Your task to perform on an android device: check the backup settings in the google photos Image 0: 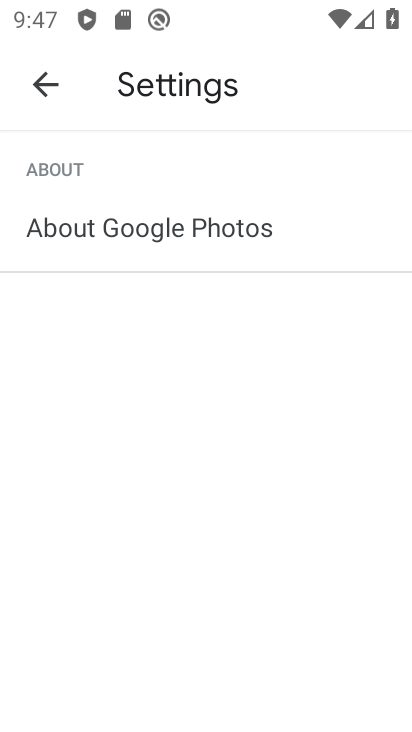
Step 0: press home button
Your task to perform on an android device: check the backup settings in the google photos Image 1: 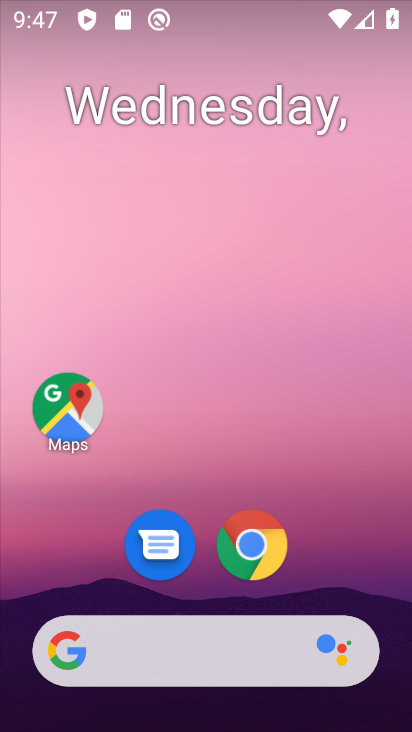
Step 1: drag from (244, 499) to (230, 52)
Your task to perform on an android device: check the backup settings in the google photos Image 2: 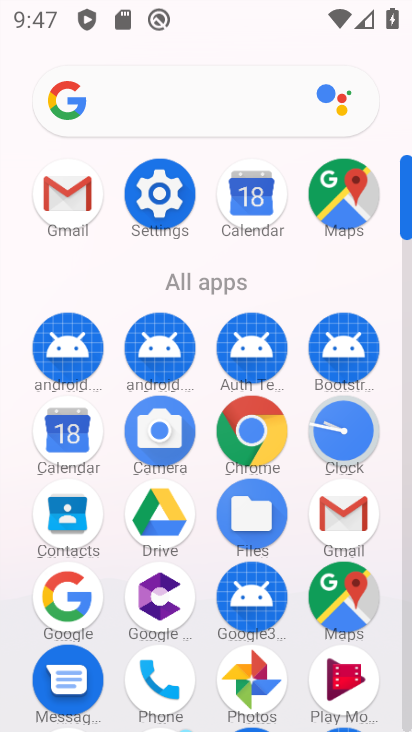
Step 2: drag from (203, 542) to (221, 443)
Your task to perform on an android device: check the backup settings in the google photos Image 3: 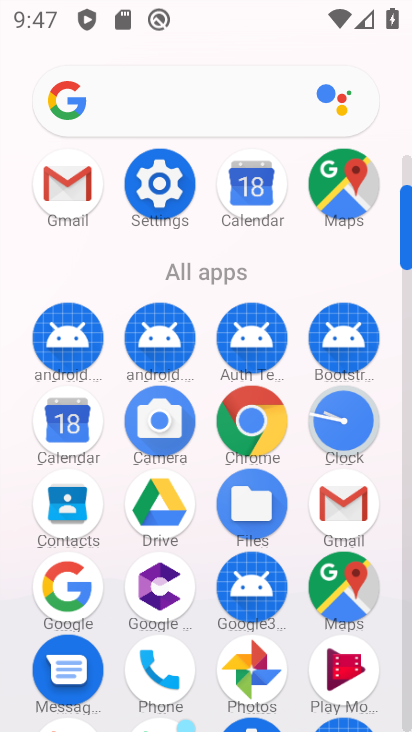
Step 3: click (249, 648)
Your task to perform on an android device: check the backup settings in the google photos Image 4: 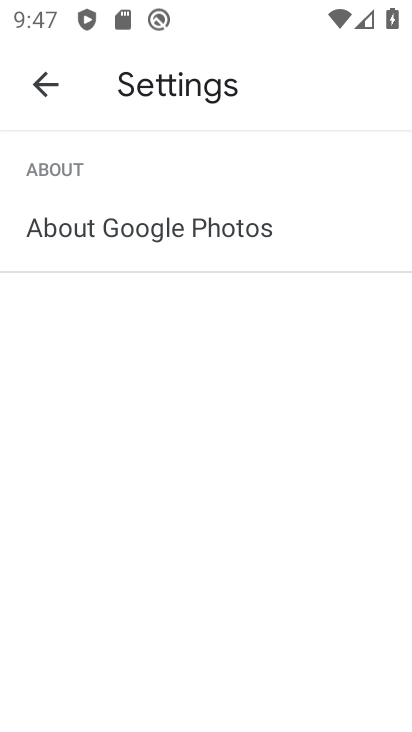
Step 4: click (46, 73)
Your task to perform on an android device: check the backup settings in the google photos Image 5: 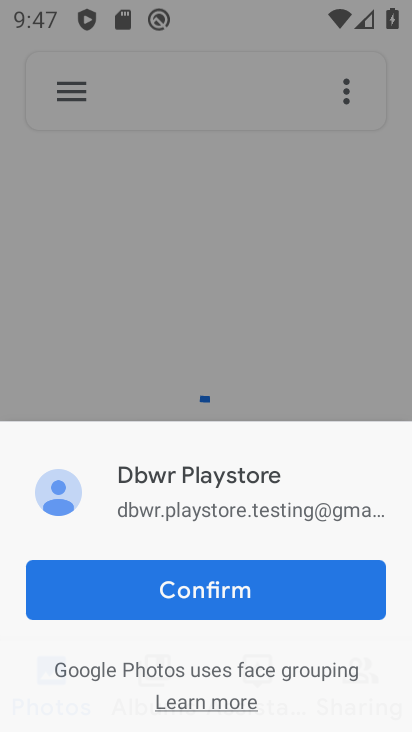
Step 5: click (58, 81)
Your task to perform on an android device: check the backup settings in the google photos Image 6: 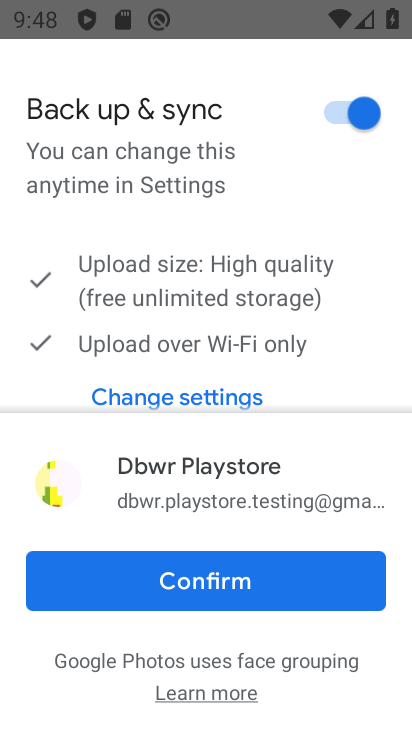
Step 6: click (232, 585)
Your task to perform on an android device: check the backup settings in the google photos Image 7: 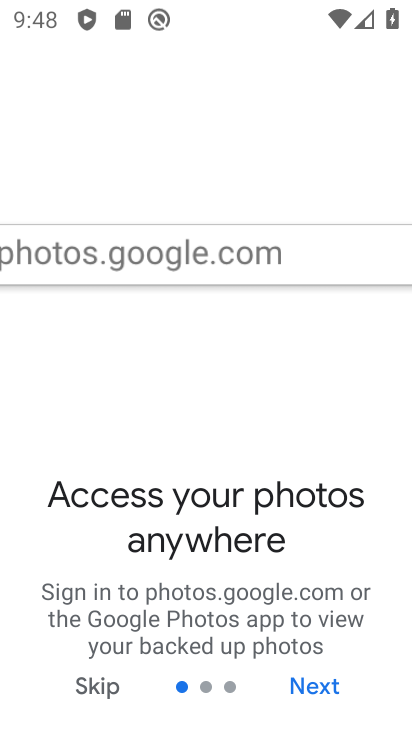
Step 7: click (315, 677)
Your task to perform on an android device: check the backup settings in the google photos Image 8: 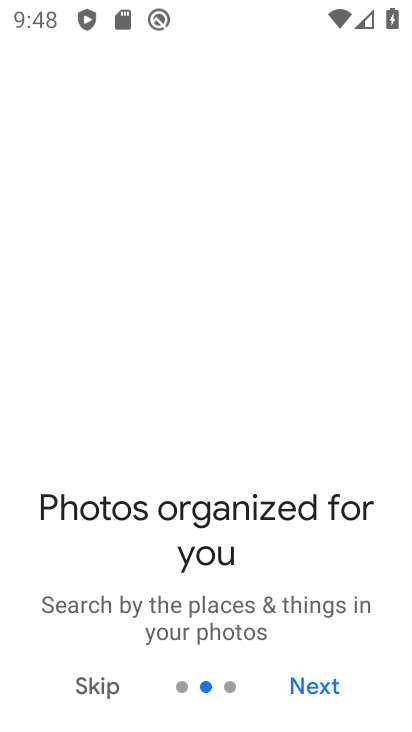
Step 8: click (318, 682)
Your task to perform on an android device: check the backup settings in the google photos Image 9: 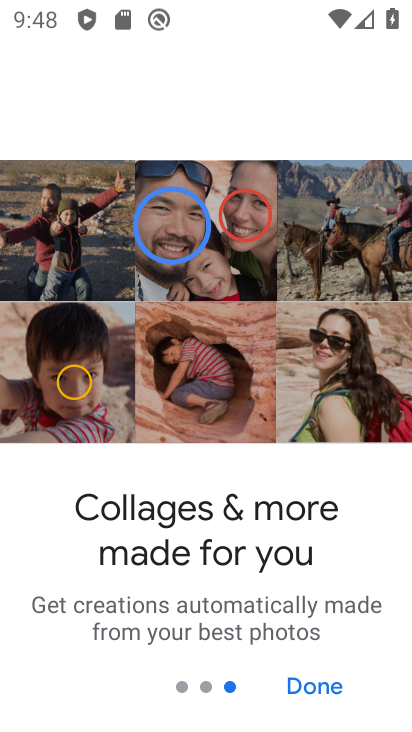
Step 9: click (318, 683)
Your task to perform on an android device: check the backup settings in the google photos Image 10: 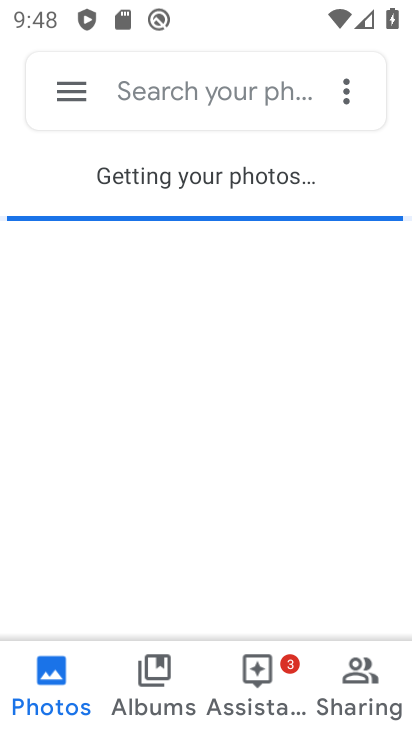
Step 10: click (63, 75)
Your task to perform on an android device: check the backup settings in the google photos Image 11: 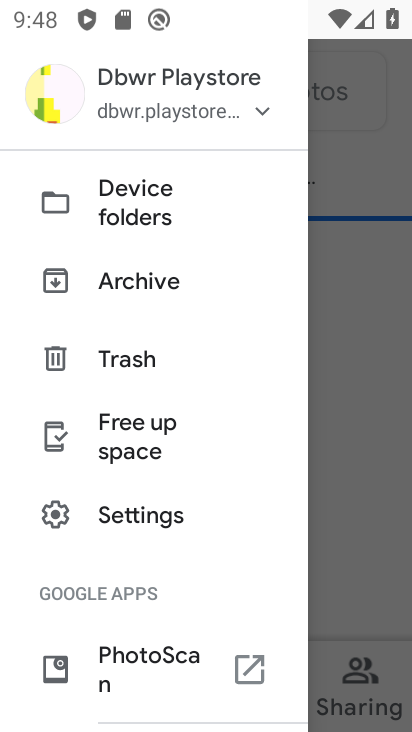
Step 11: click (149, 511)
Your task to perform on an android device: check the backup settings in the google photos Image 12: 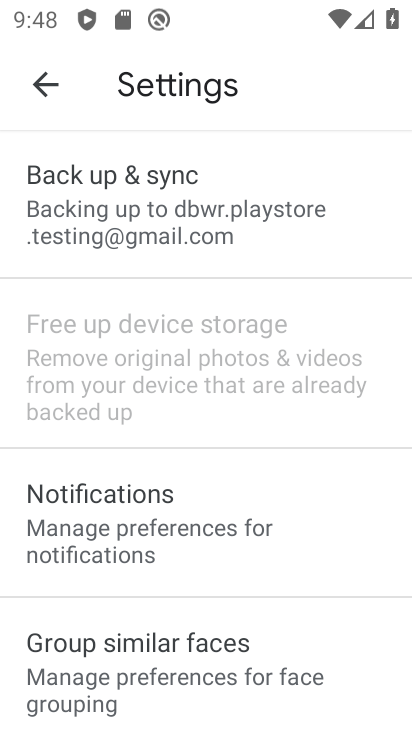
Step 12: click (217, 184)
Your task to perform on an android device: check the backup settings in the google photos Image 13: 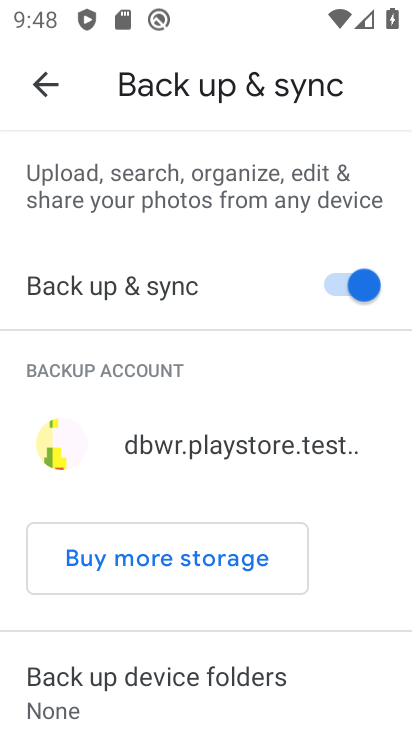
Step 13: task complete